Your task to perform on an android device: change your default location settings in chrome Image 0: 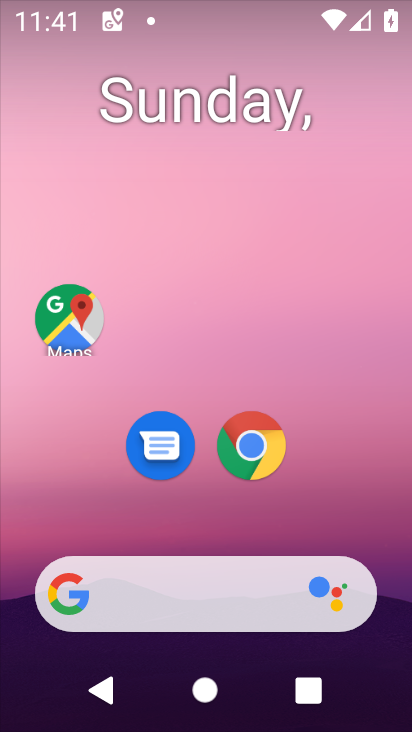
Step 0: click (255, 450)
Your task to perform on an android device: change your default location settings in chrome Image 1: 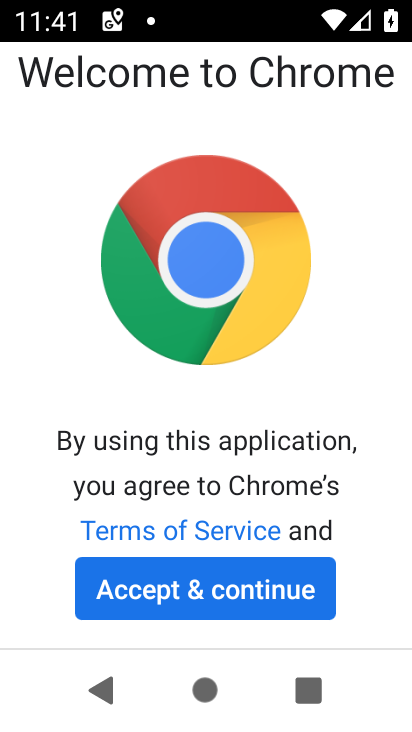
Step 1: click (240, 586)
Your task to perform on an android device: change your default location settings in chrome Image 2: 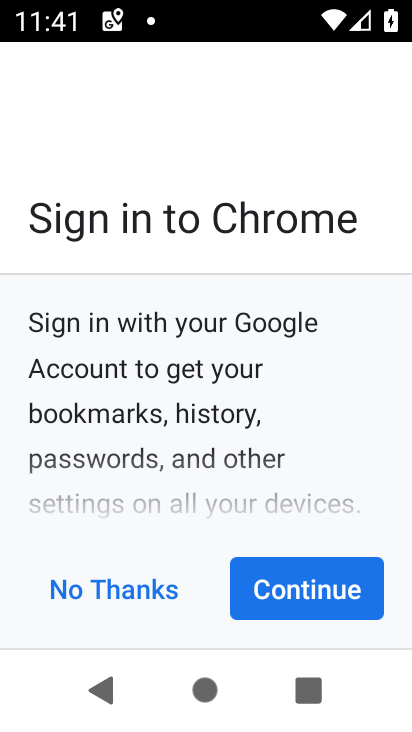
Step 2: click (295, 591)
Your task to perform on an android device: change your default location settings in chrome Image 3: 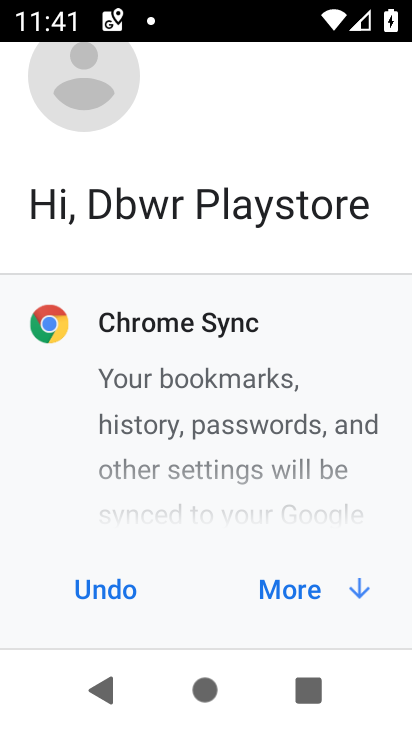
Step 3: click (296, 589)
Your task to perform on an android device: change your default location settings in chrome Image 4: 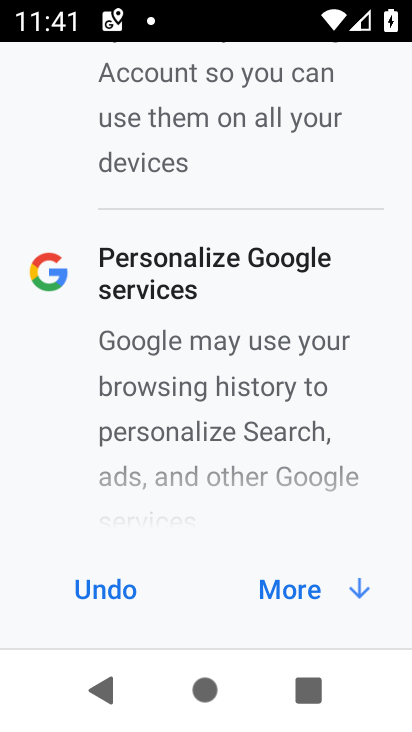
Step 4: click (296, 589)
Your task to perform on an android device: change your default location settings in chrome Image 5: 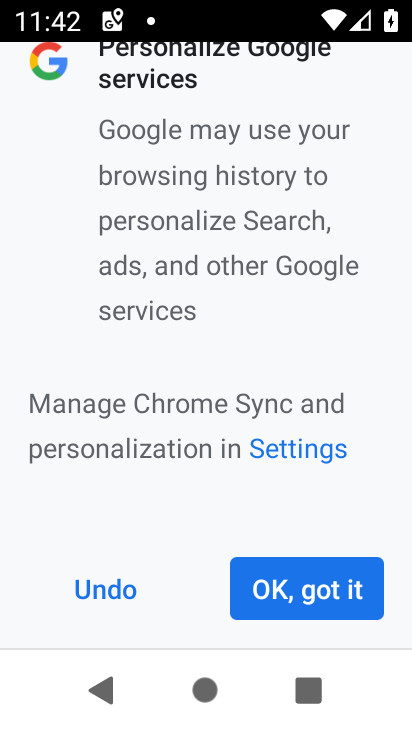
Step 5: click (297, 587)
Your task to perform on an android device: change your default location settings in chrome Image 6: 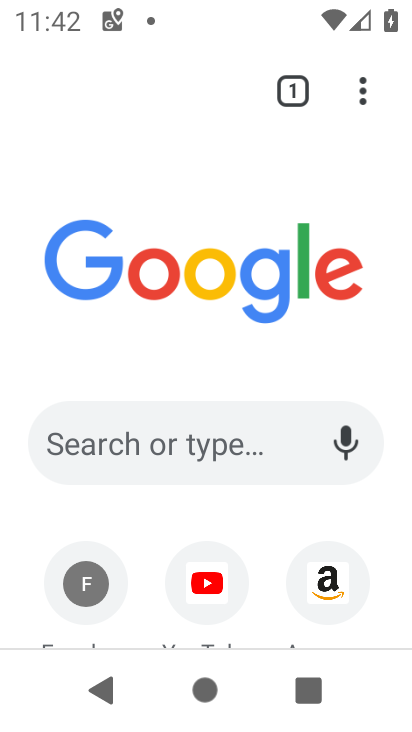
Step 6: click (374, 92)
Your task to perform on an android device: change your default location settings in chrome Image 7: 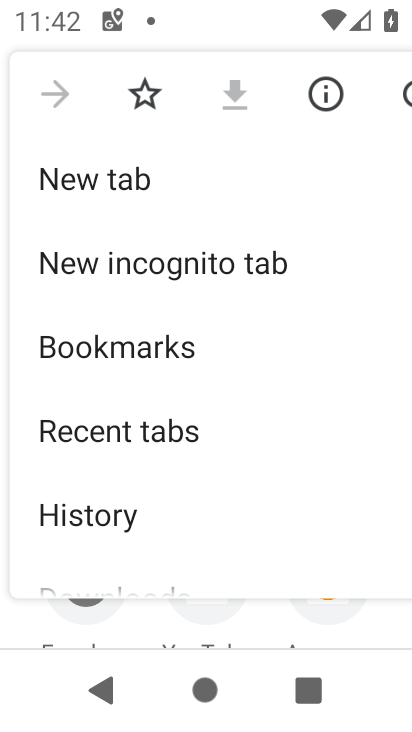
Step 7: drag from (213, 535) to (208, 187)
Your task to perform on an android device: change your default location settings in chrome Image 8: 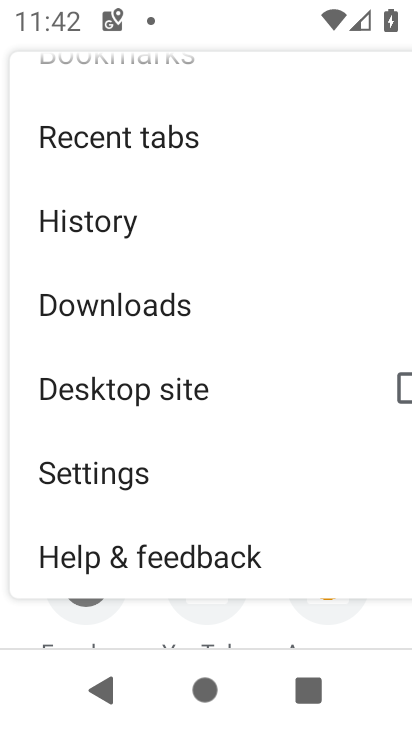
Step 8: click (144, 485)
Your task to perform on an android device: change your default location settings in chrome Image 9: 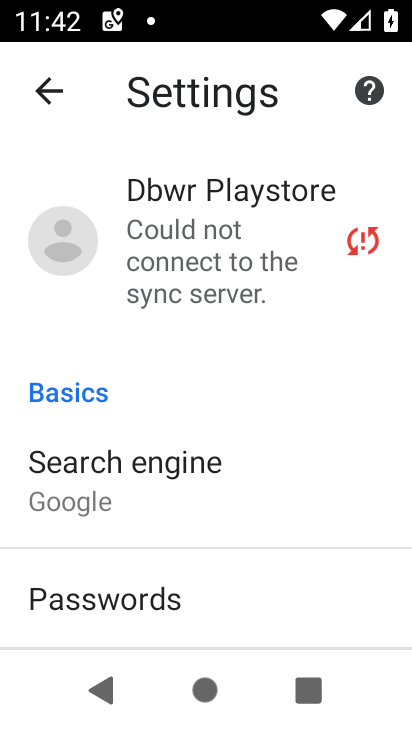
Step 9: drag from (213, 562) to (211, 119)
Your task to perform on an android device: change your default location settings in chrome Image 10: 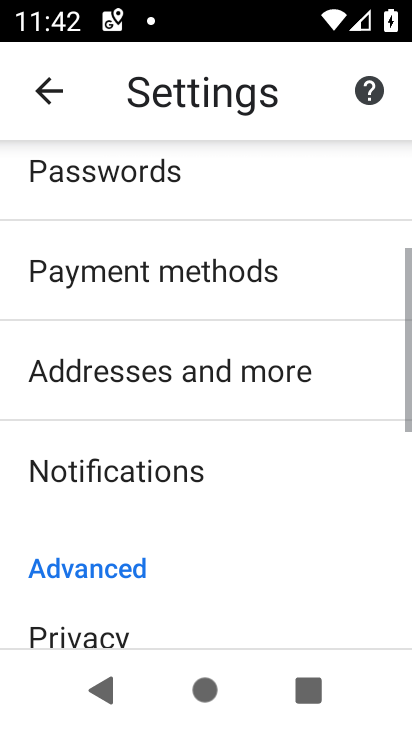
Step 10: drag from (228, 518) to (242, 276)
Your task to perform on an android device: change your default location settings in chrome Image 11: 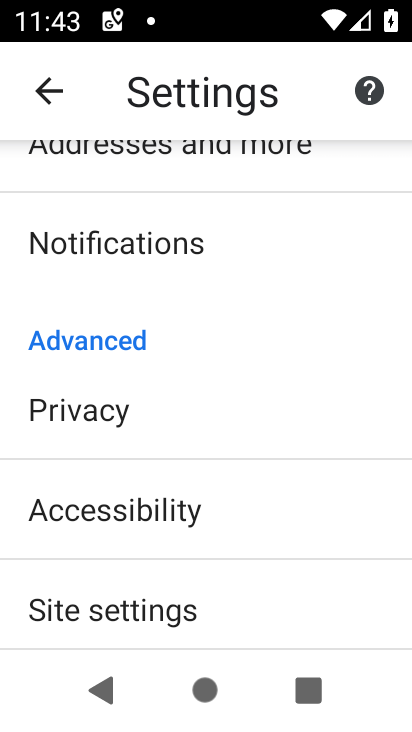
Step 11: click (165, 602)
Your task to perform on an android device: change your default location settings in chrome Image 12: 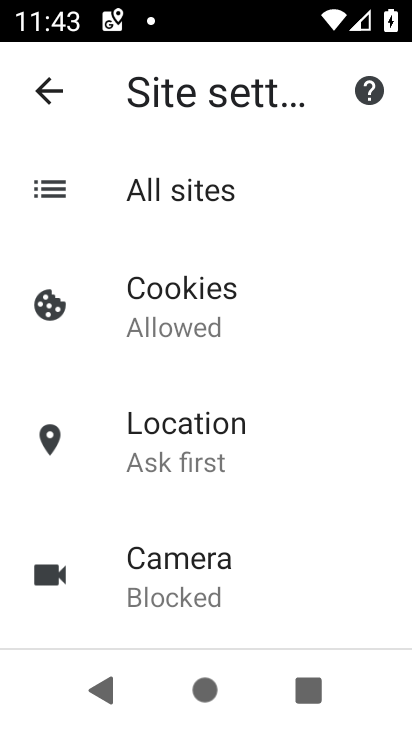
Step 12: drag from (257, 510) to (278, 190)
Your task to perform on an android device: change your default location settings in chrome Image 13: 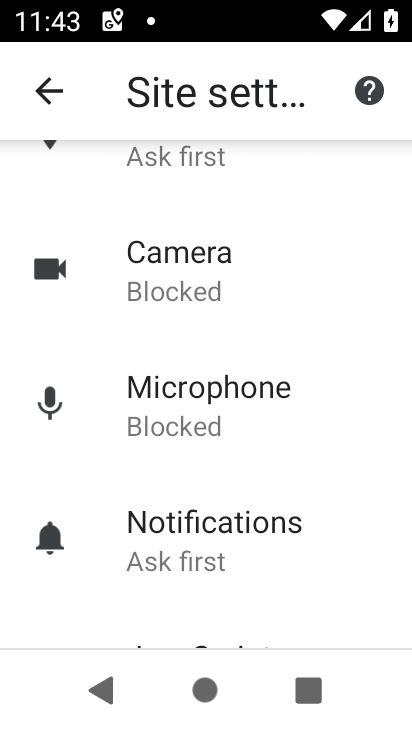
Step 13: drag from (216, 260) to (216, 216)
Your task to perform on an android device: change your default location settings in chrome Image 14: 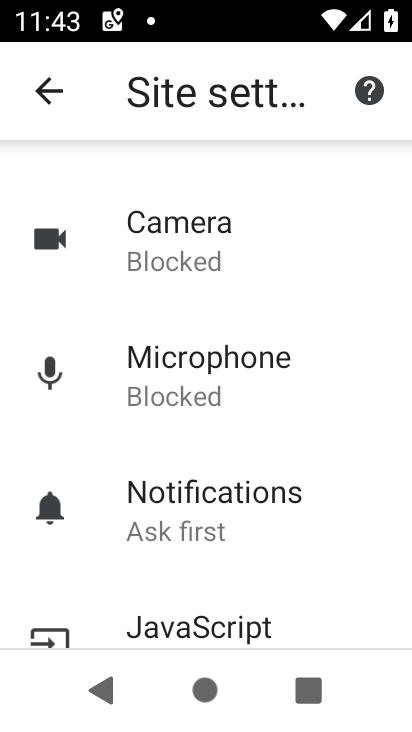
Step 14: drag from (216, 568) to (223, 269)
Your task to perform on an android device: change your default location settings in chrome Image 15: 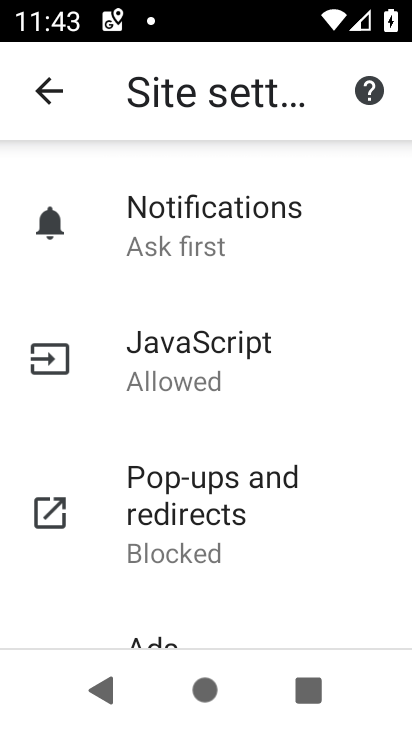
Step 15: drag from (253, 546) to (267, 223)
Your task to perform on an android device: change your default location settings in chrome Image 16: 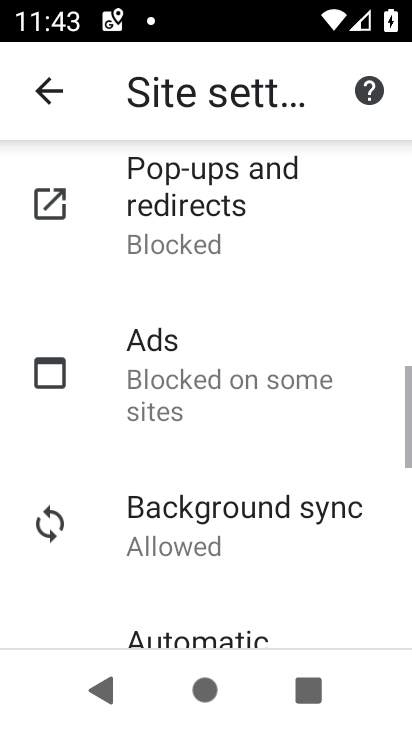
Step 16: drag from (247, 574) to (256, 304)
Your task to perform on an android device: change your default location settings in chrome Image 17: 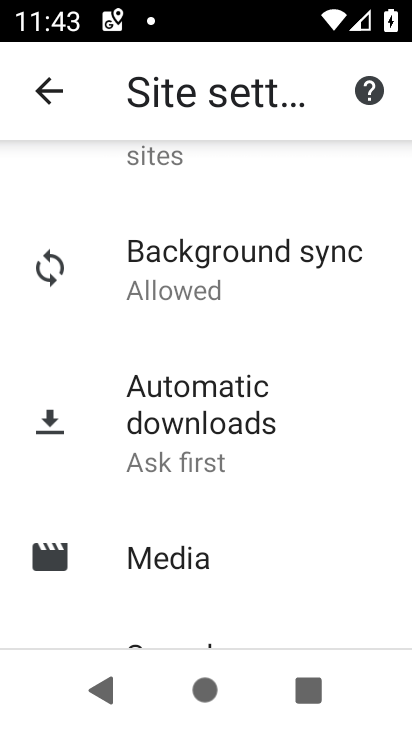
Step 17: drag from (255, 296) to (279, 685)
Your task to perform on an android device: change your default location settings in chrome Image 18: 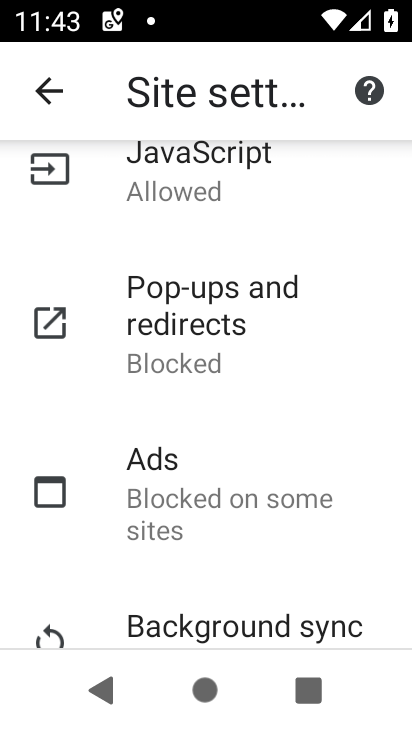
Step 18: drag from (262, 265) to (250, 682)
Your task to perform on an android device: change your default location settings in chrome Image 19: 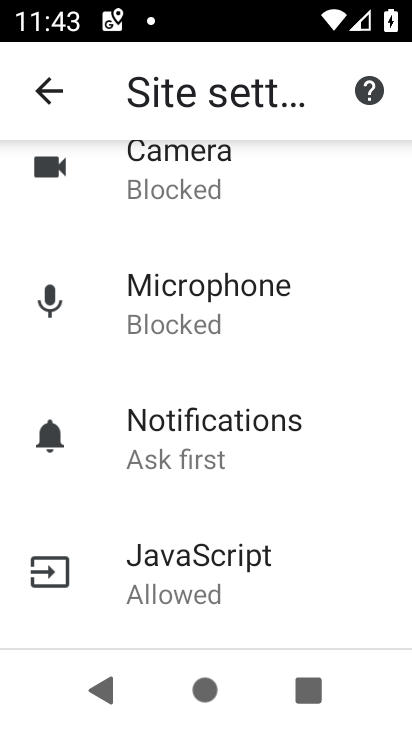
Step 19: drag from (203, 223) to (214, 537)
Your task to perform on an android device: change your default location settings in chrome Image 20: 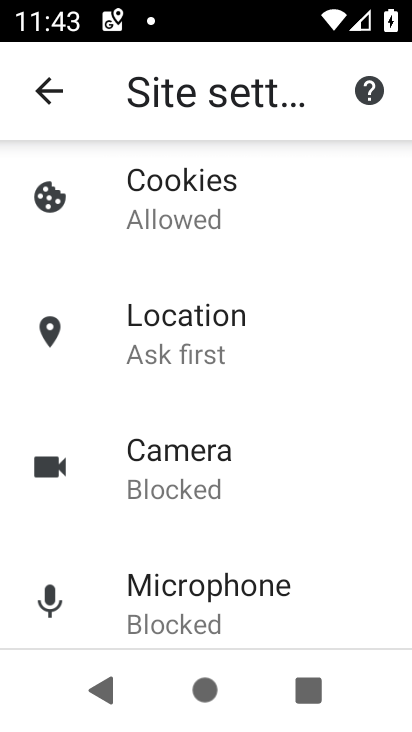
Step 20: click (189, 352)
Your task to perform on an android device: change your default location settings in chrome Image 21: 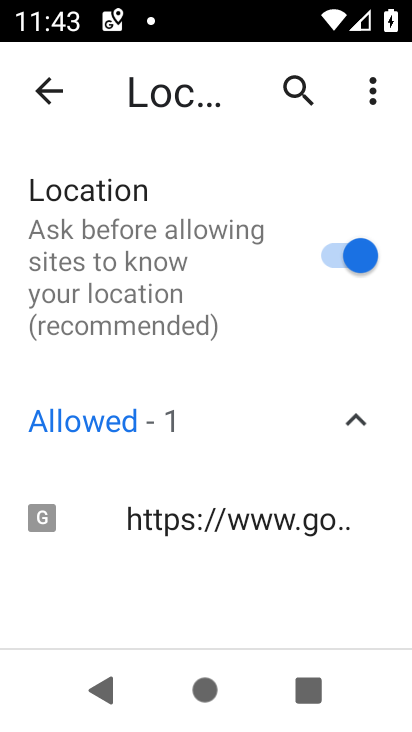
Step 21: click (331, 256)
Your task to perform on an android device: change your default location settings in chrome Image 22: 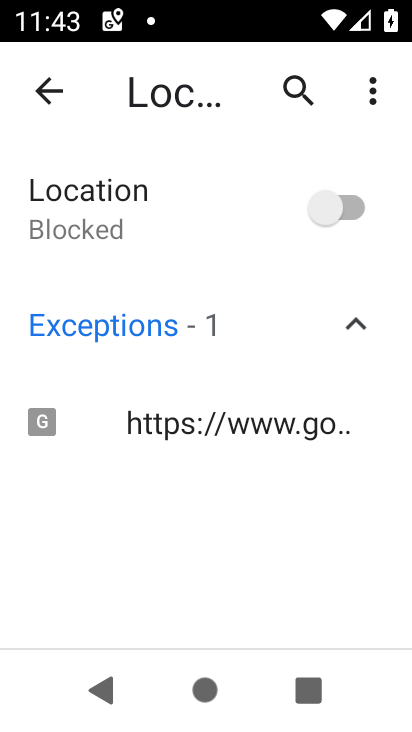
Step 22: task complete